Your task to perform on an android device: change alarm snooze length Image 0: 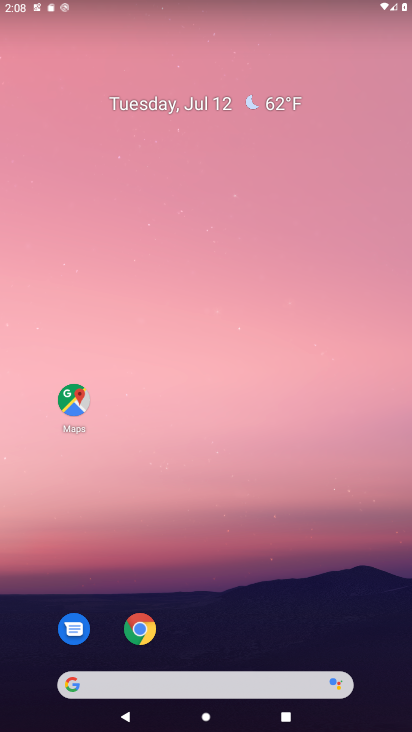
Step 0: drag from (217, 654) to (256, 38)
Your task to perform on an android device: change alarm snooze length Image 1: 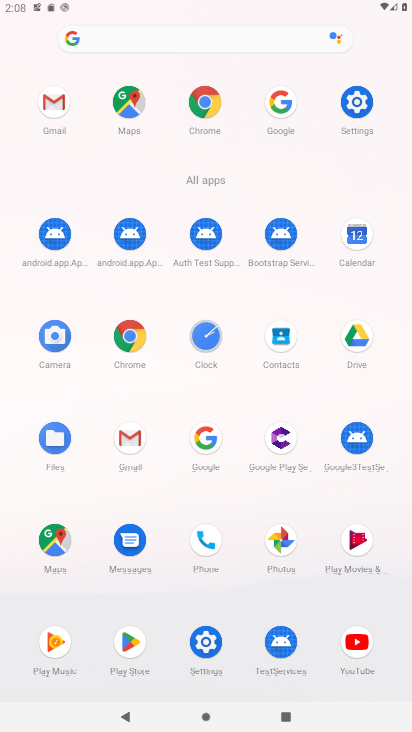
Step 1: click (202, 330)
Your task to perform on an android device: change alarm snooze length Image 2: 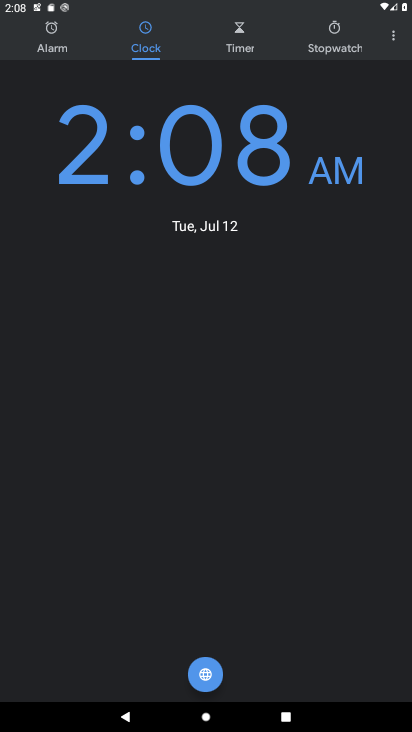
Step 2: click (391, 32)
Your task to perform on an android device: change alarm snooze length Image 3: 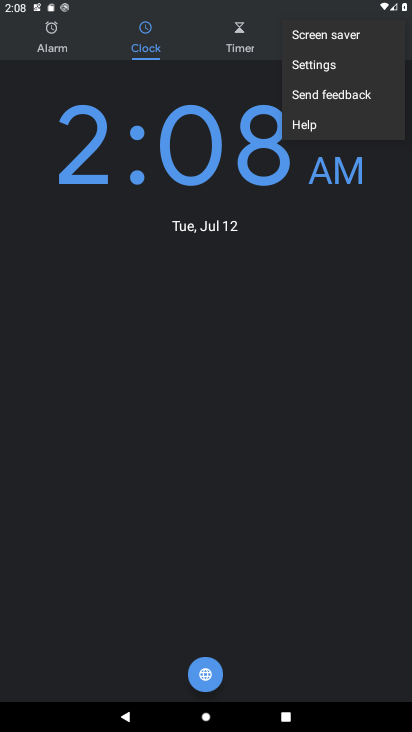
Step 3: click (341, 68)
Your task to perform on an android device: change alarm snooze length Image 4: 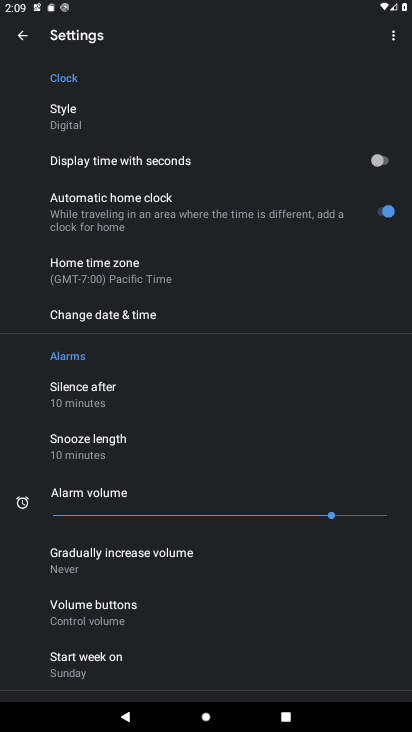
Step 4: click (134, 439)
Your task to perform on an android device: change alarm snooze length Image 5: 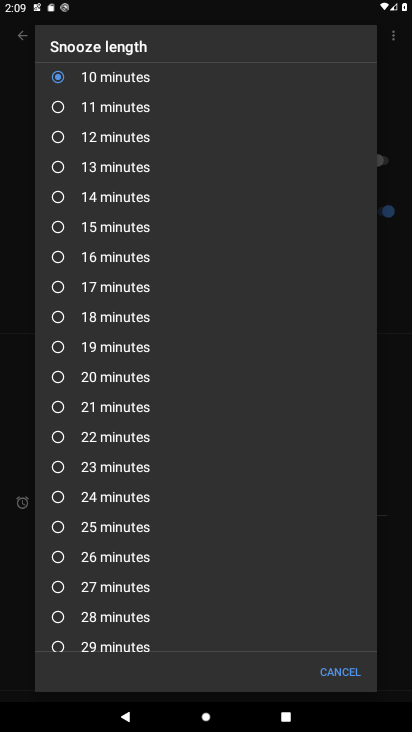
Step 5: drag from (105, 122) to (91, 467)
Your task to perform on an android device: change alarm snooze length Image 6: 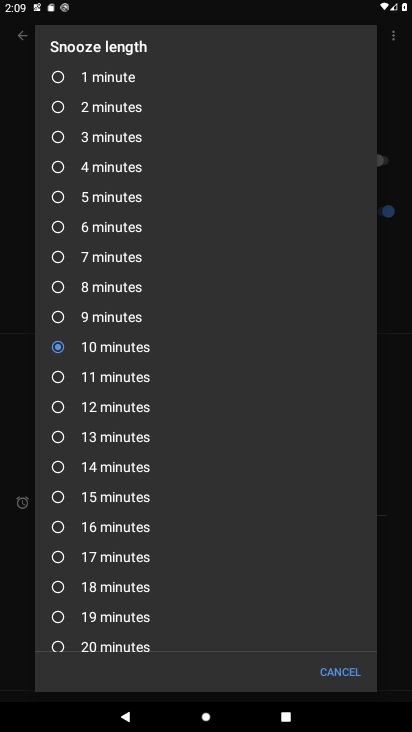
Step 6: click (52, 199)
Your task to perform on an android device: change alarm snooze length Image 7: 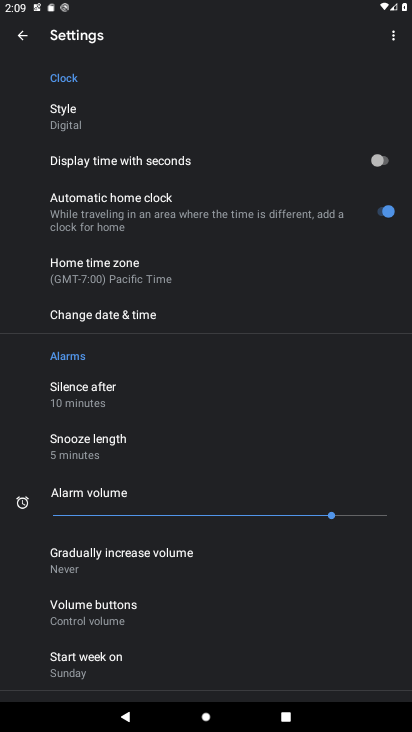
Step 7: task complete